Your task to perform on an android device: open app "Duolingo: language lessons" (install if not already installed) Image 0: 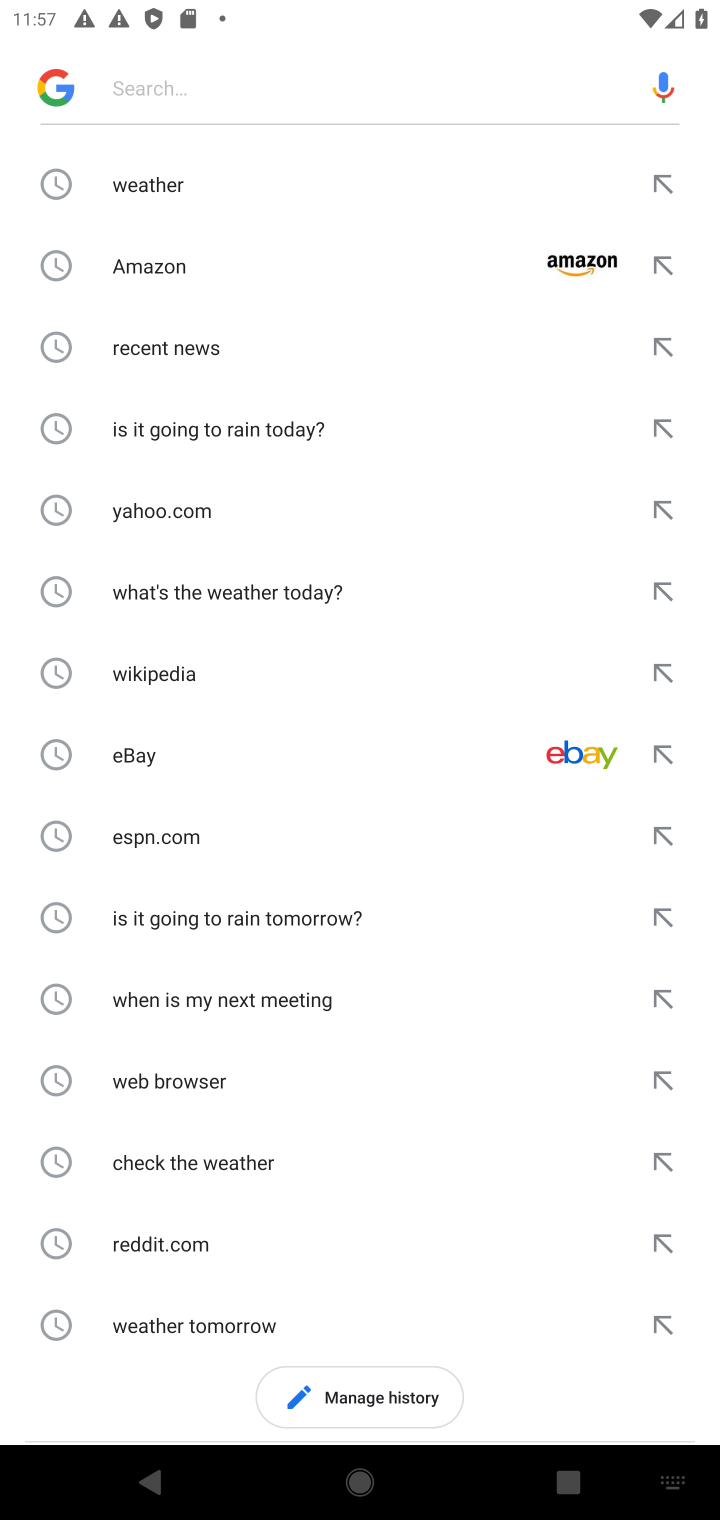
Step 0: press home button
Your task to perform on an android device: open app "Duolingo: language lessons" (install if not already installed) Image 1: 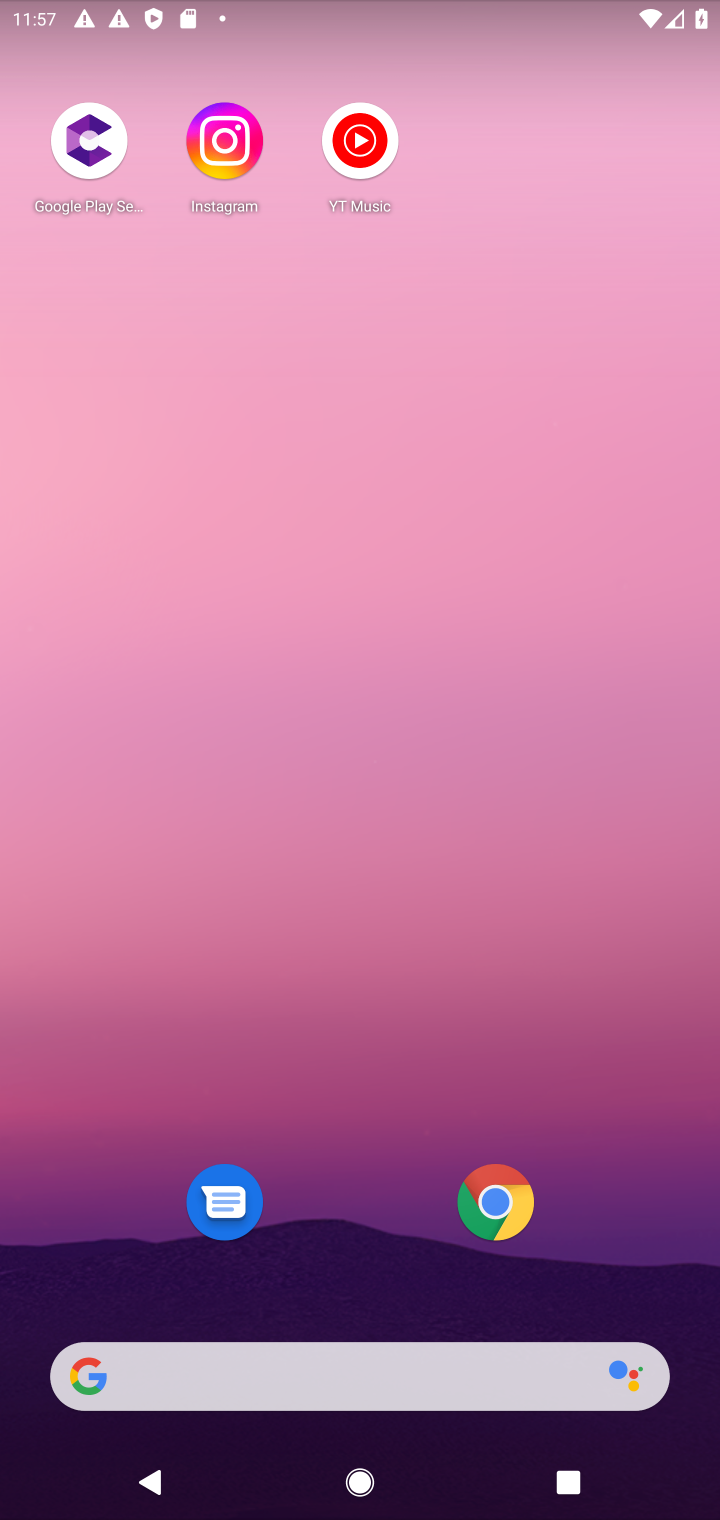
Step 1: drag from (241, 1460) to (297, 97)
Your task to perform on an android device: open app "Duolingo: language lessons" (install if not already installed) Image 2: 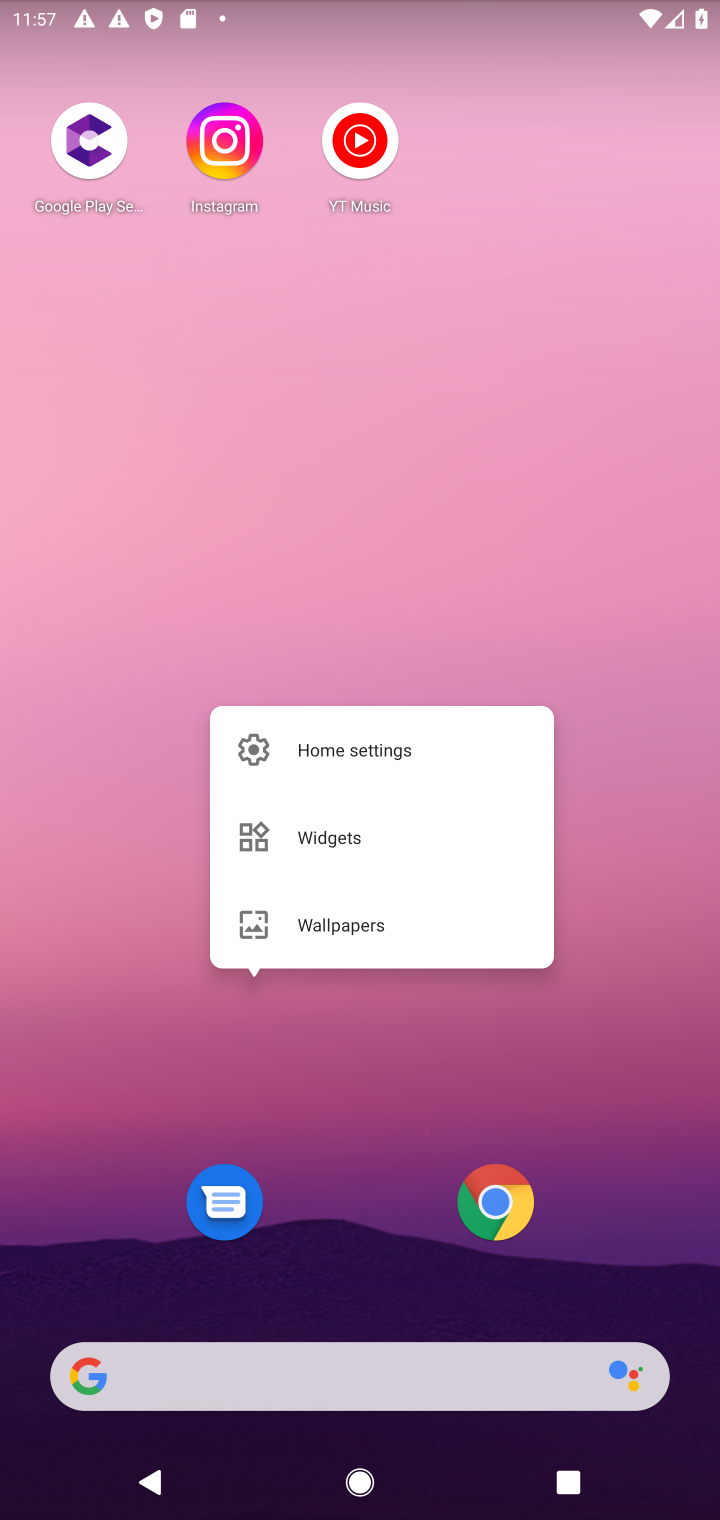
Step 2: drag from (269, 1189) to (253, 257)
Your task to perform on an android device: open app "Duolingo: language lessons" (install if not already installed) Image 3: 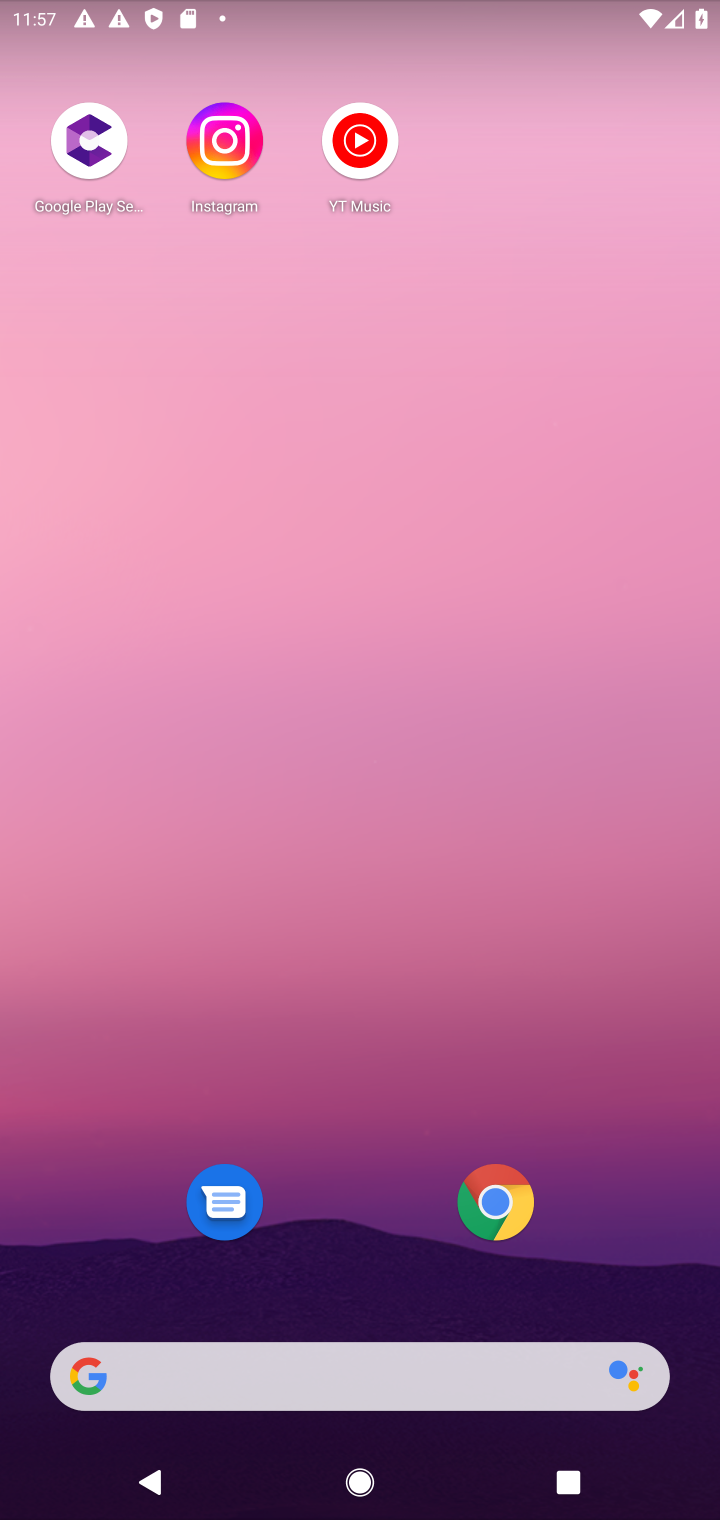
Step 3: drag from (475, 1464) to (498, 67)
Your task to perform on an android device: open app "Duolingo: language lessons" (install if not already installed) Image 4: 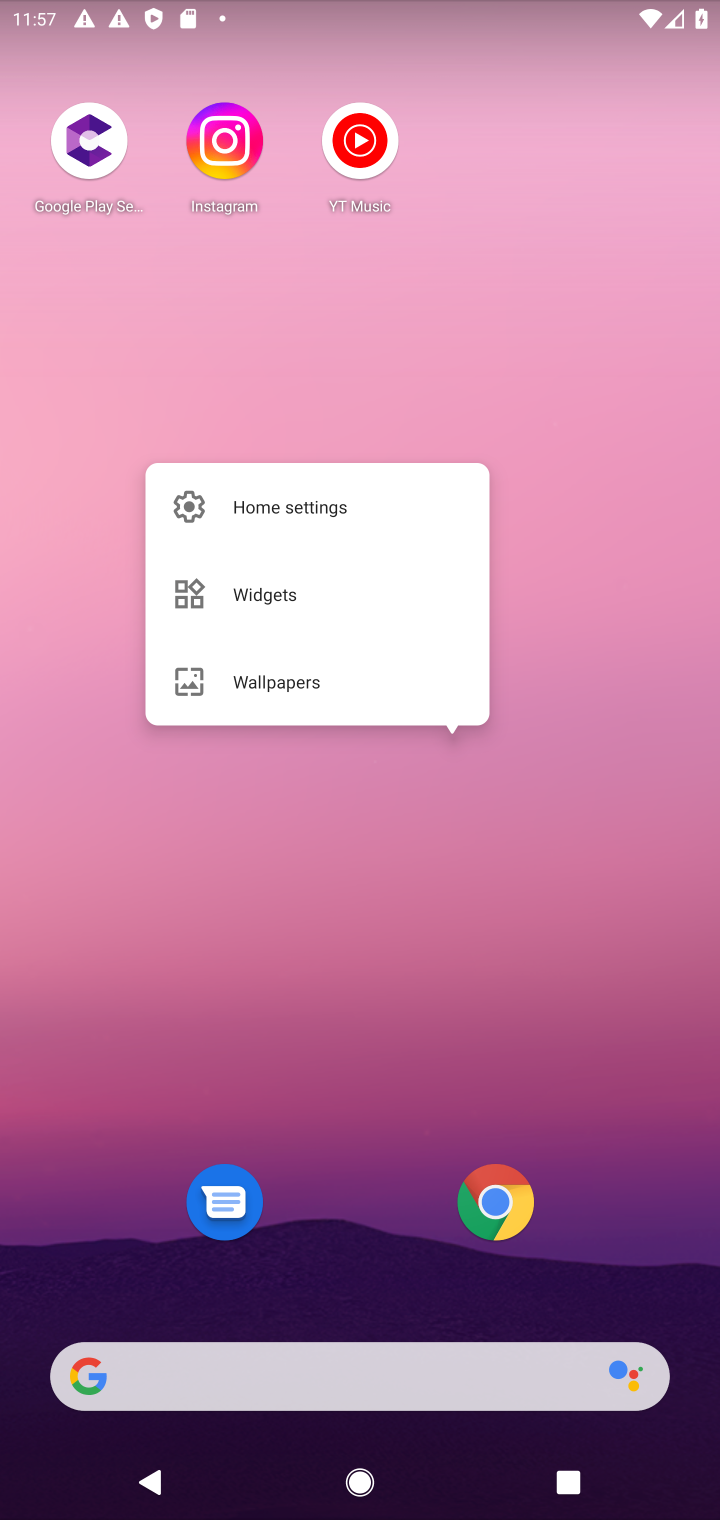
Step 4: drag from (417, 1452) to (626, 236)
Your task to perform on an android device: open app "Duolingo: language lessons" (install if not already installed) Image 5: 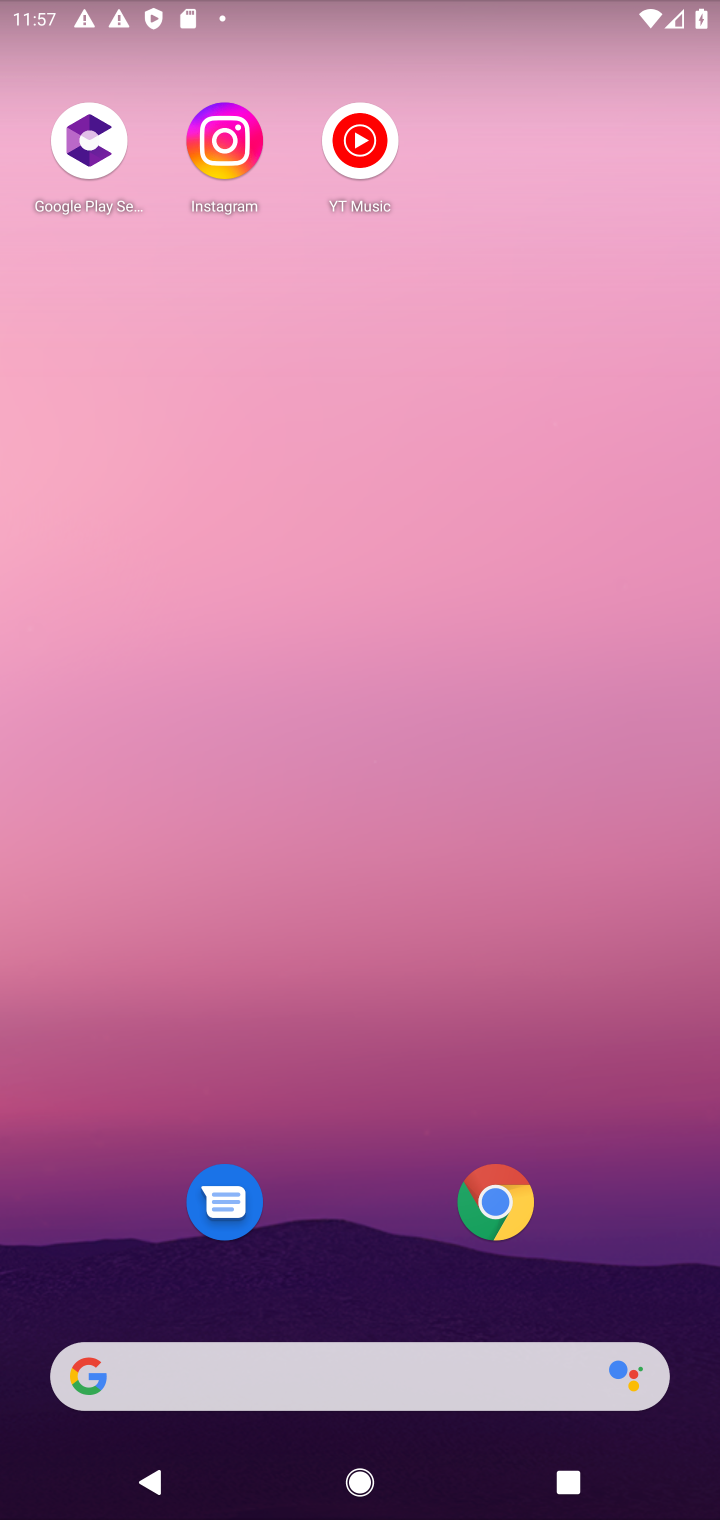
Step 5: drag from (233, 1432) to (453, 153)
Your task to perform on an android device: open app "Duolingo: language lessons" (install if not already installed) Image 6: 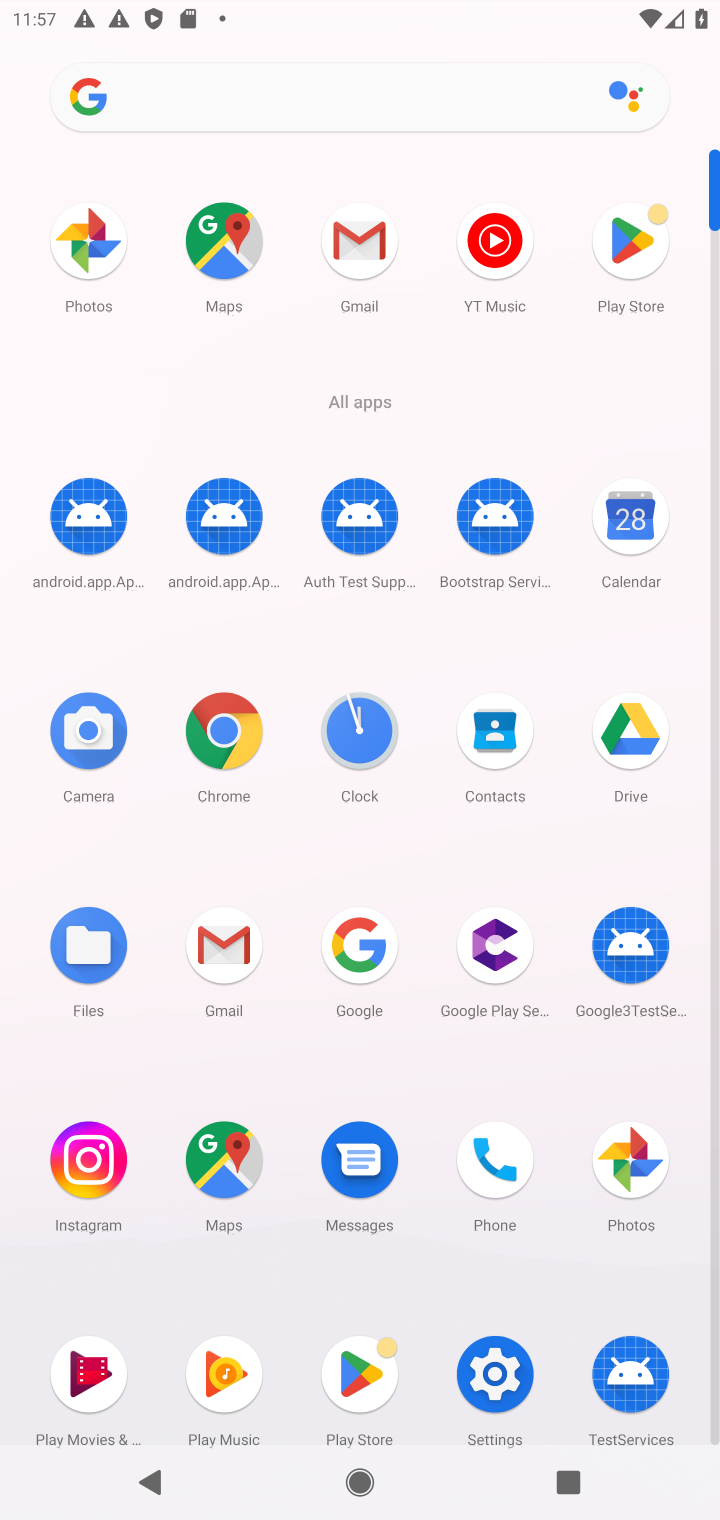
Step 6: click (630, 227)
Your task to perform on an android device: open app "Duolingo: language lessons" (install if not already installed) Image 7: 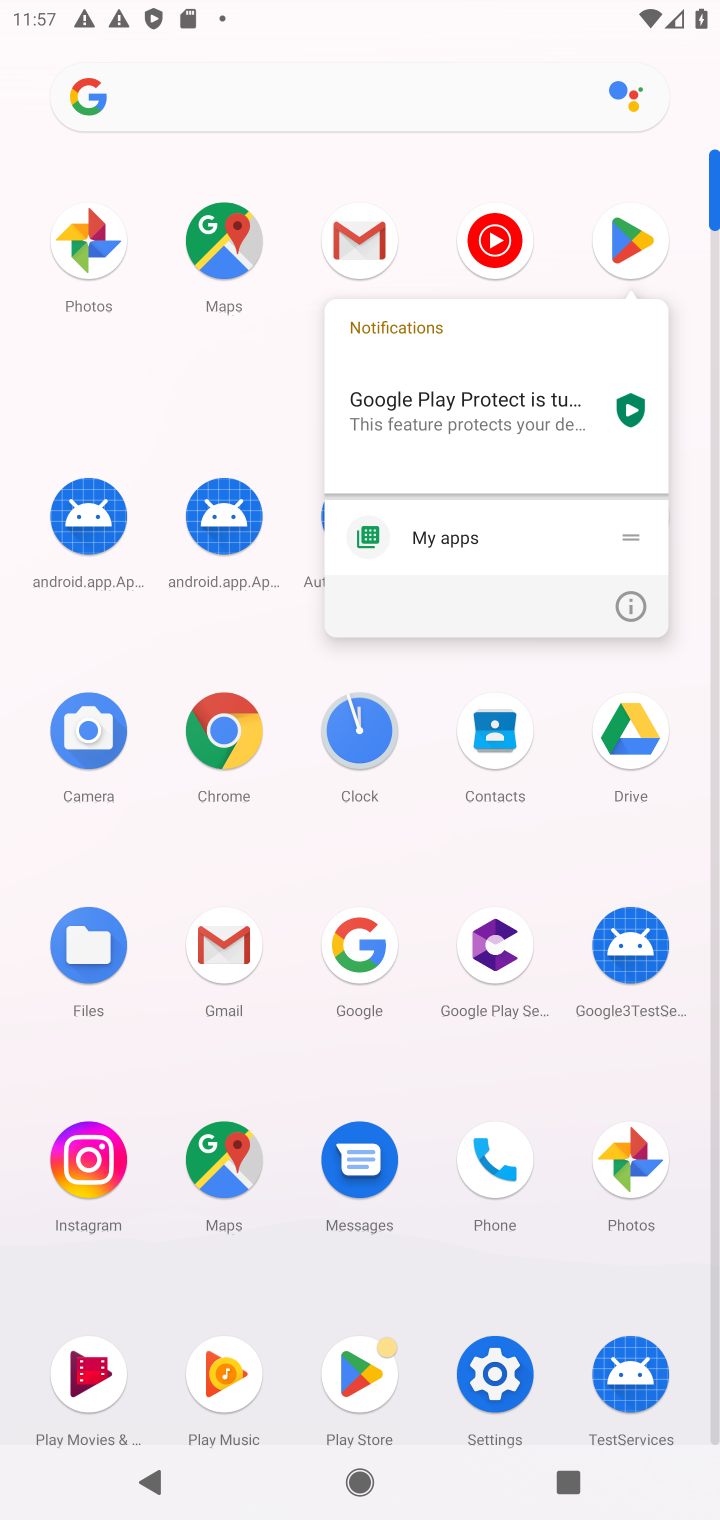
Step 7: click (630, 227)
Your task to perform on an android device: open app "Duolingo: language lessons" (install if not already installed) Image 8: 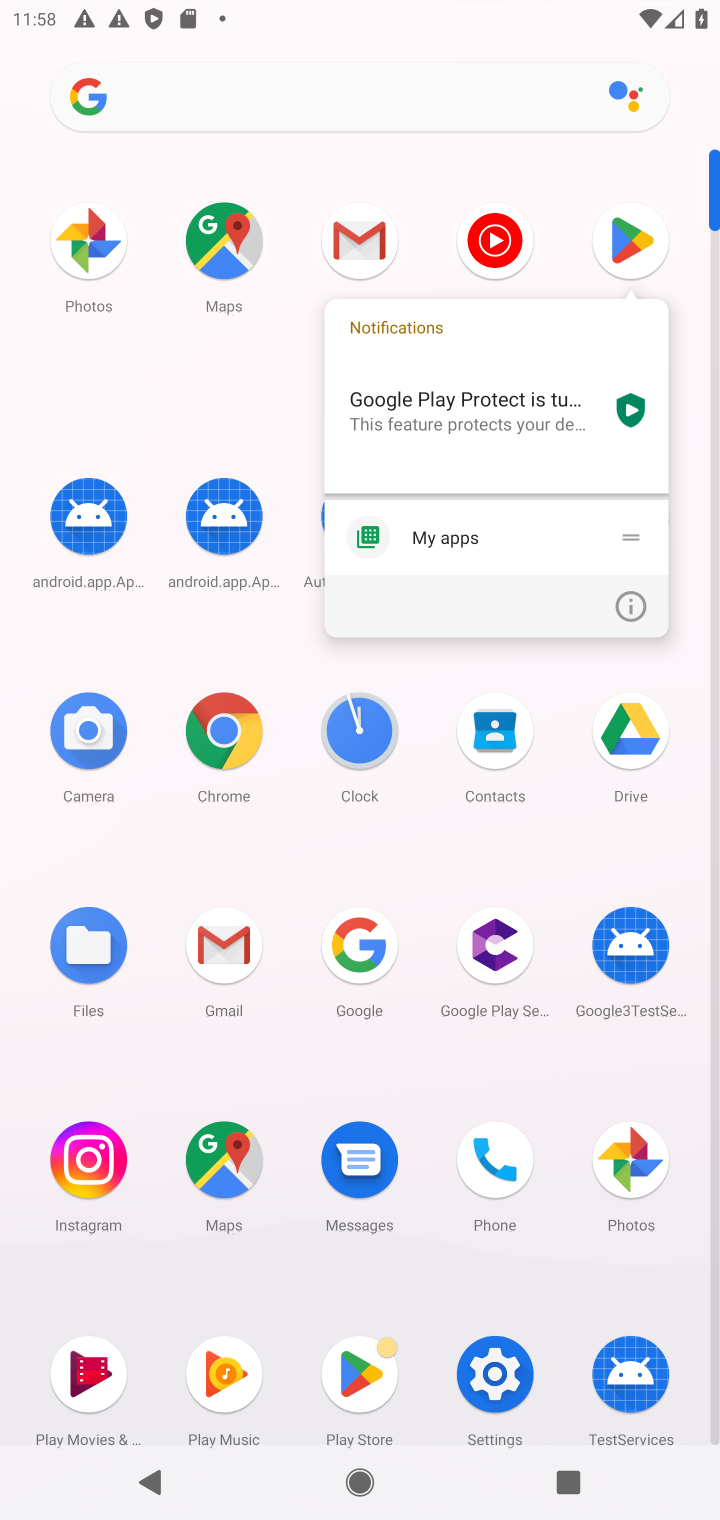
Step 8: click (630, 227)
Your task to perform on an android device: open app "Duolingo: language lessons" (install if not already installed) Image 9: 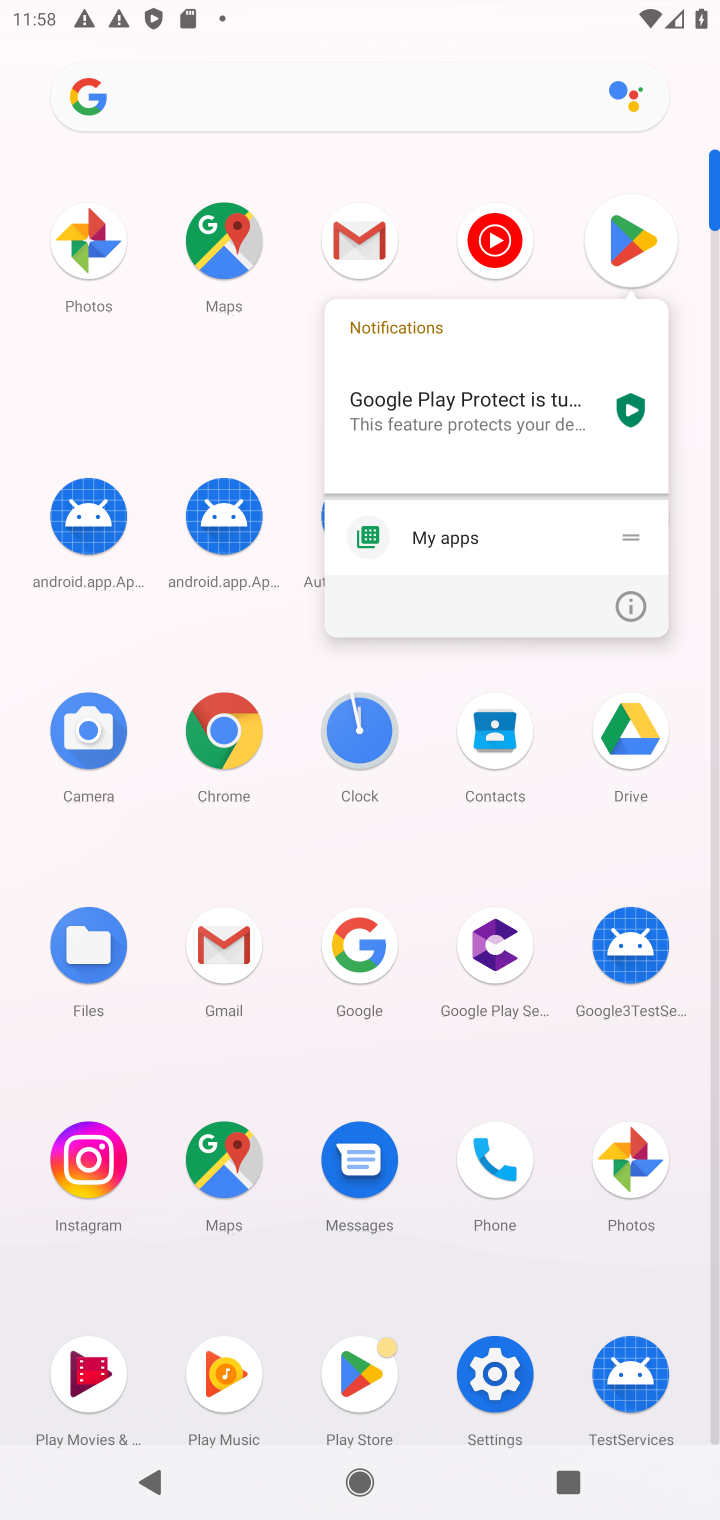
Step 9: click (630, 227)
Your task to perform on an android device: open app "Duolingo: language lessons" (install if not already installed) Image 10: 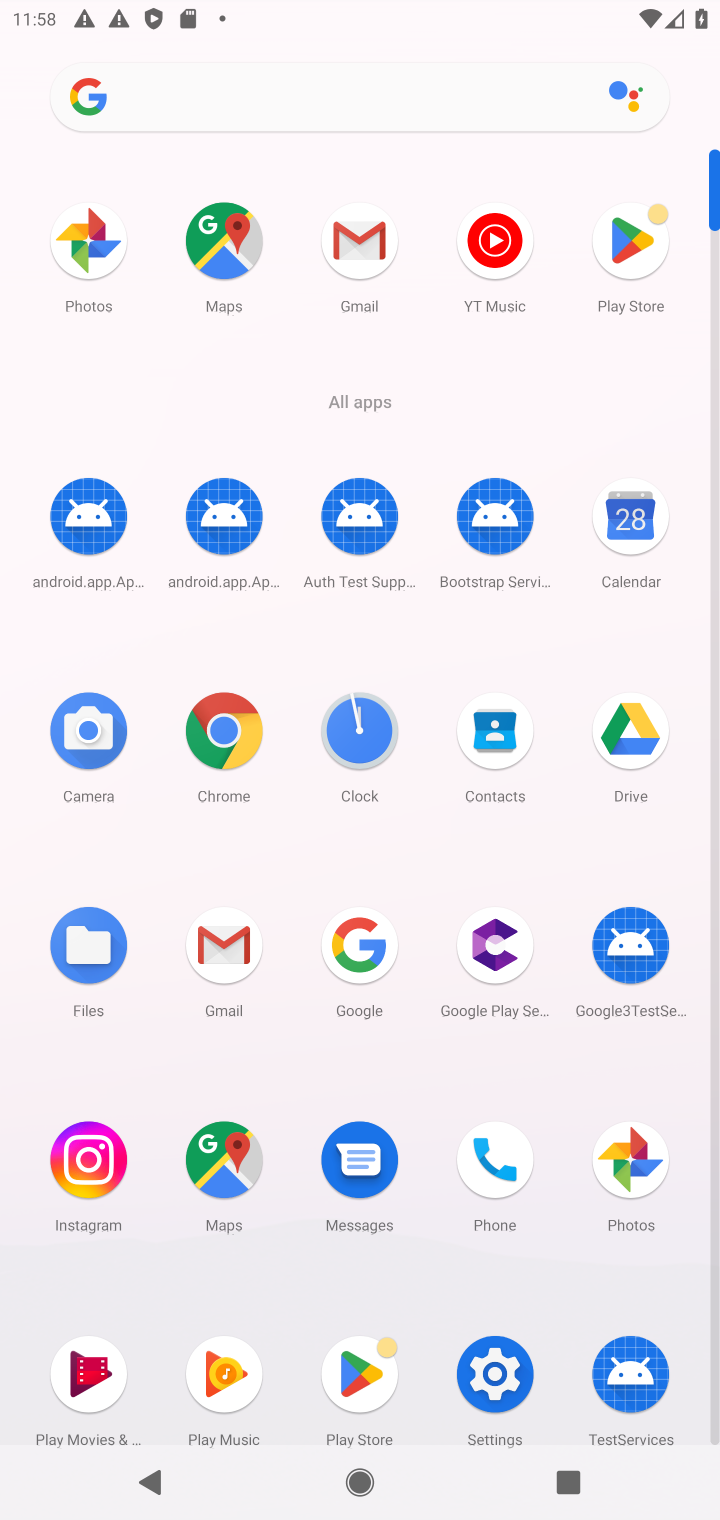
Step 10: click (630, 227)
Your task to perform on an android device: open app "Duolingo: language lessons" (install if not already installed) Image 11: 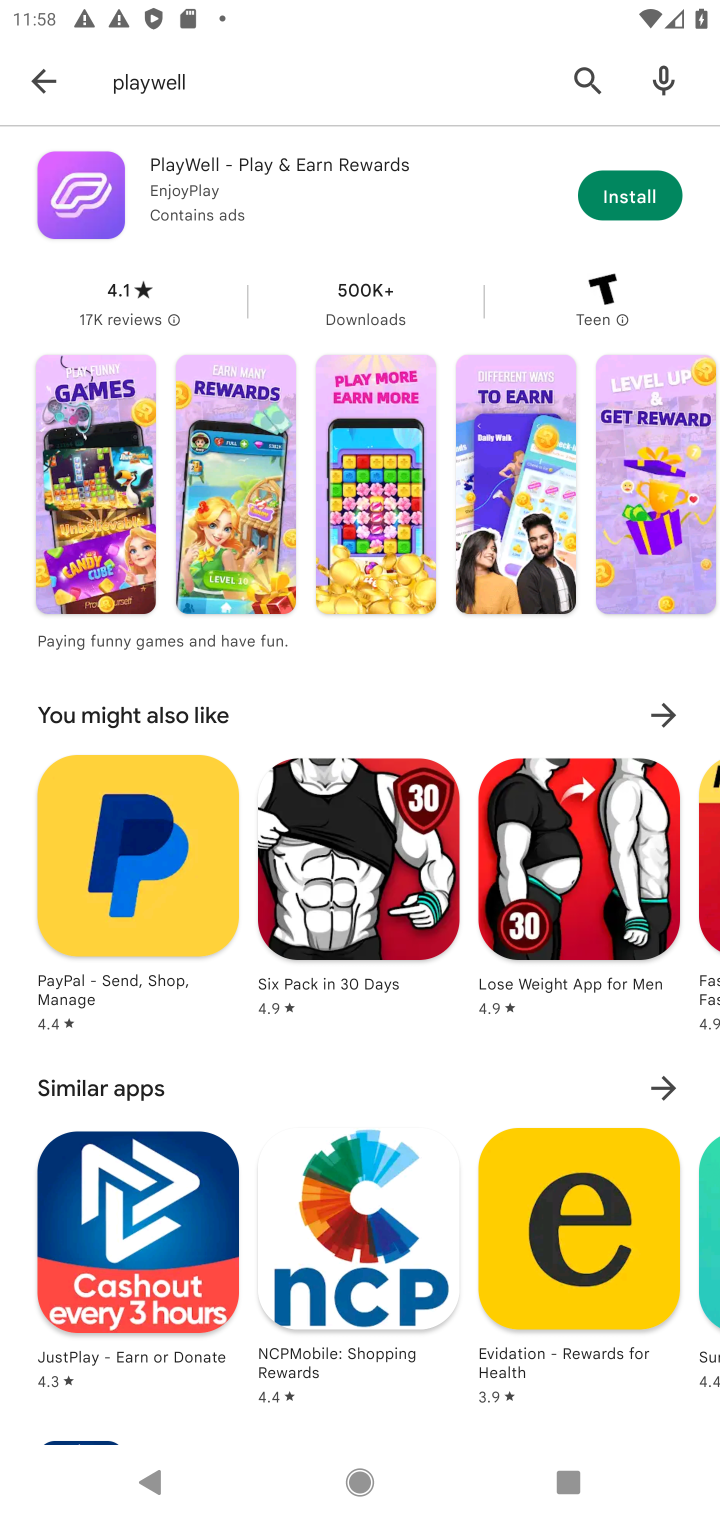
Step 11: click (589, 72)
Your task to perform on an android device: open app "Duolingo: language lessons" (install if not already installed) Image 12: 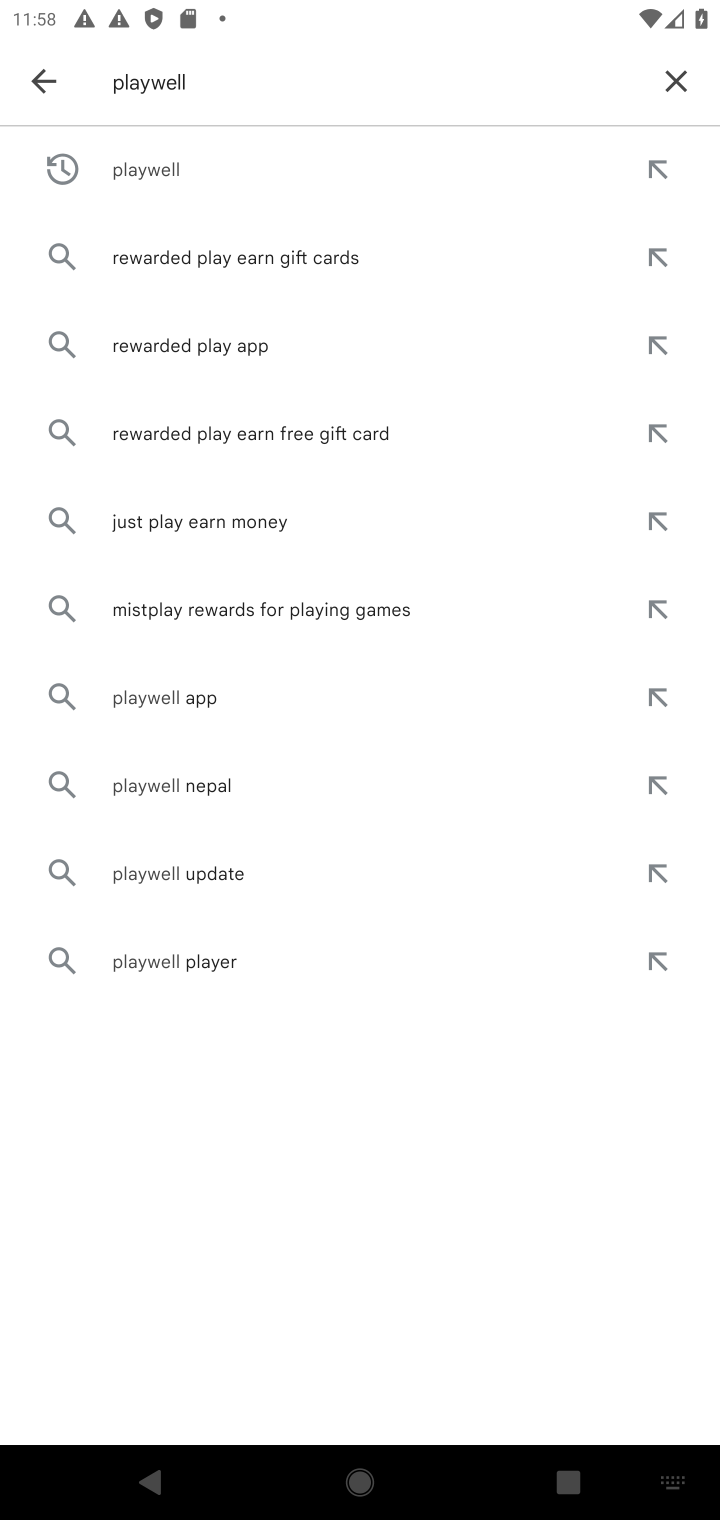
Step 12: click (660, 76)
Your task to perform on an android device: open app "Duolingo: language lessons" (install if not already installed) Image 13: 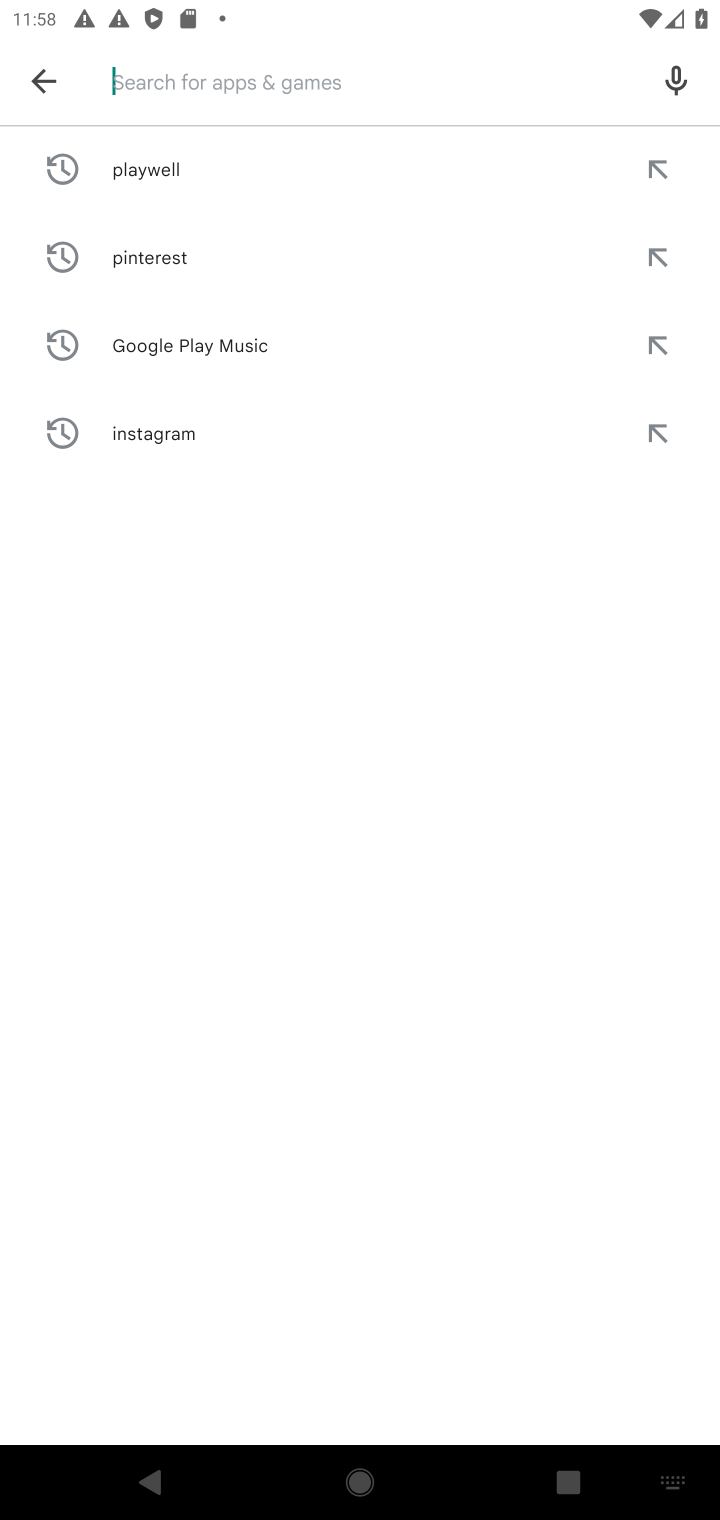
Step 13: type "Duolingo: language lessons"
Your task to perform on an android device: open app "Duolingo: language lessons" (install if not already installed) Image 14: 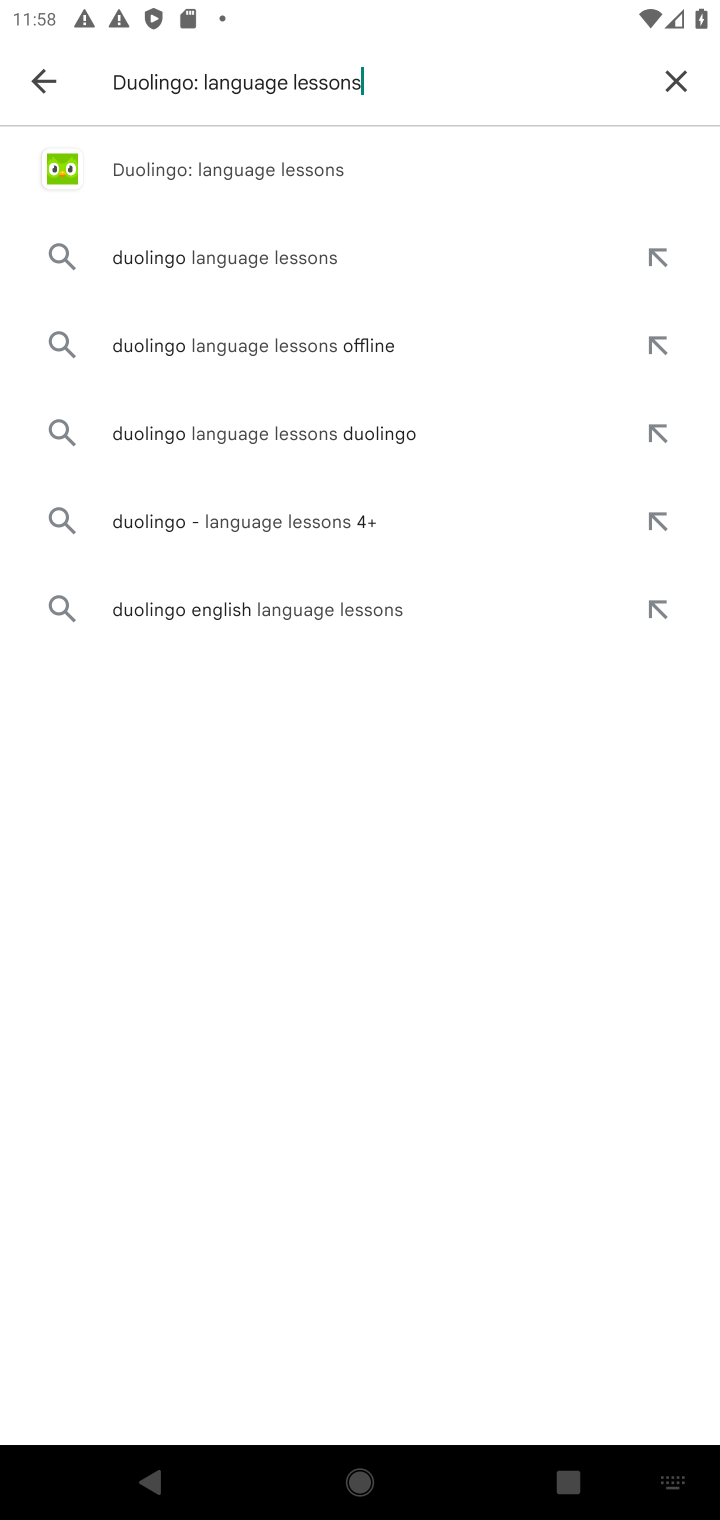
Step 14: click (298, 160)
Your task to perform on an android device: open app "Duolingo: language lessons" (install if not already installed) Image 15: 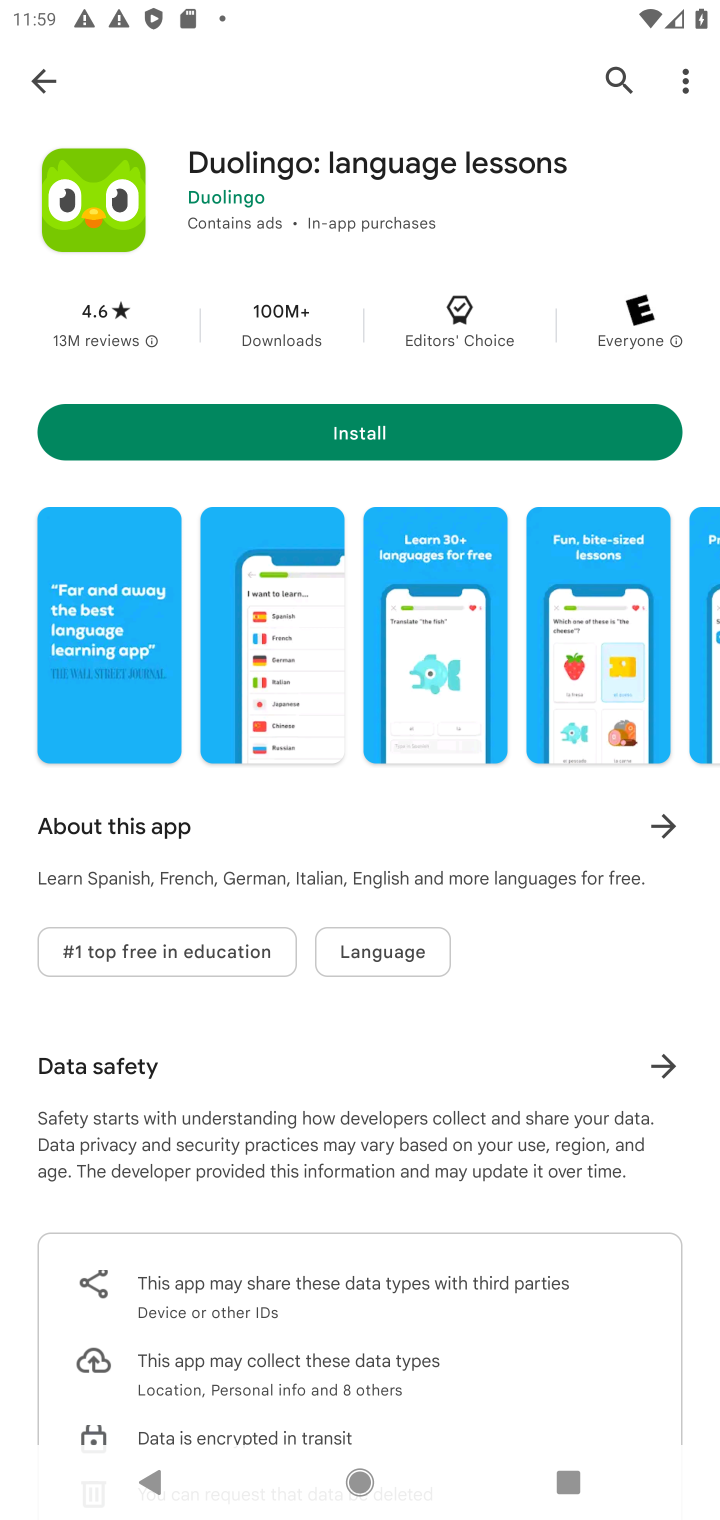
Step 15: click (542, 432)
Your task to perform on an android device: open app "Duolingo: language lessons" (install if not already installed) Image 16: 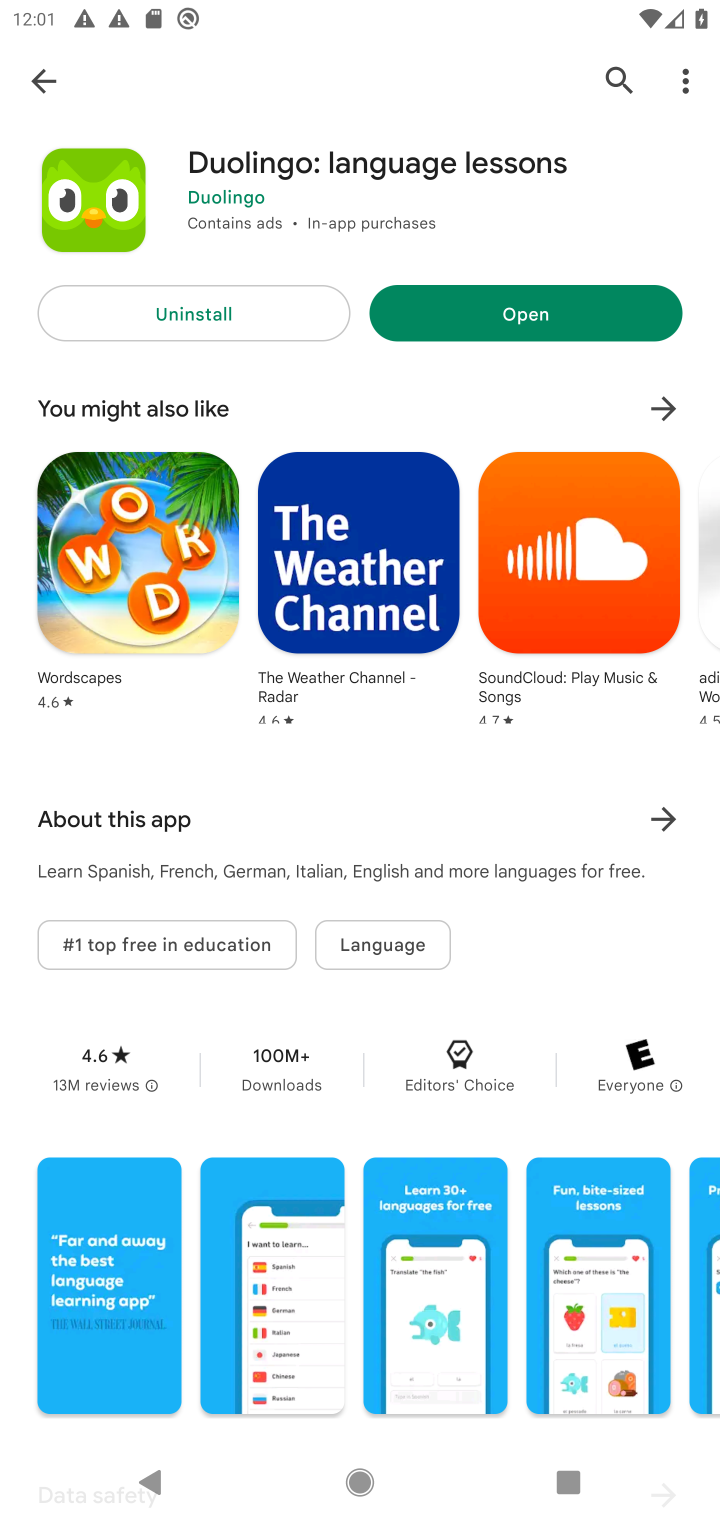
Step 16: click (613, 305)
Your task to perform on an android device: open app "Duolingo: language lessons" (install if not already installed) Image 17: 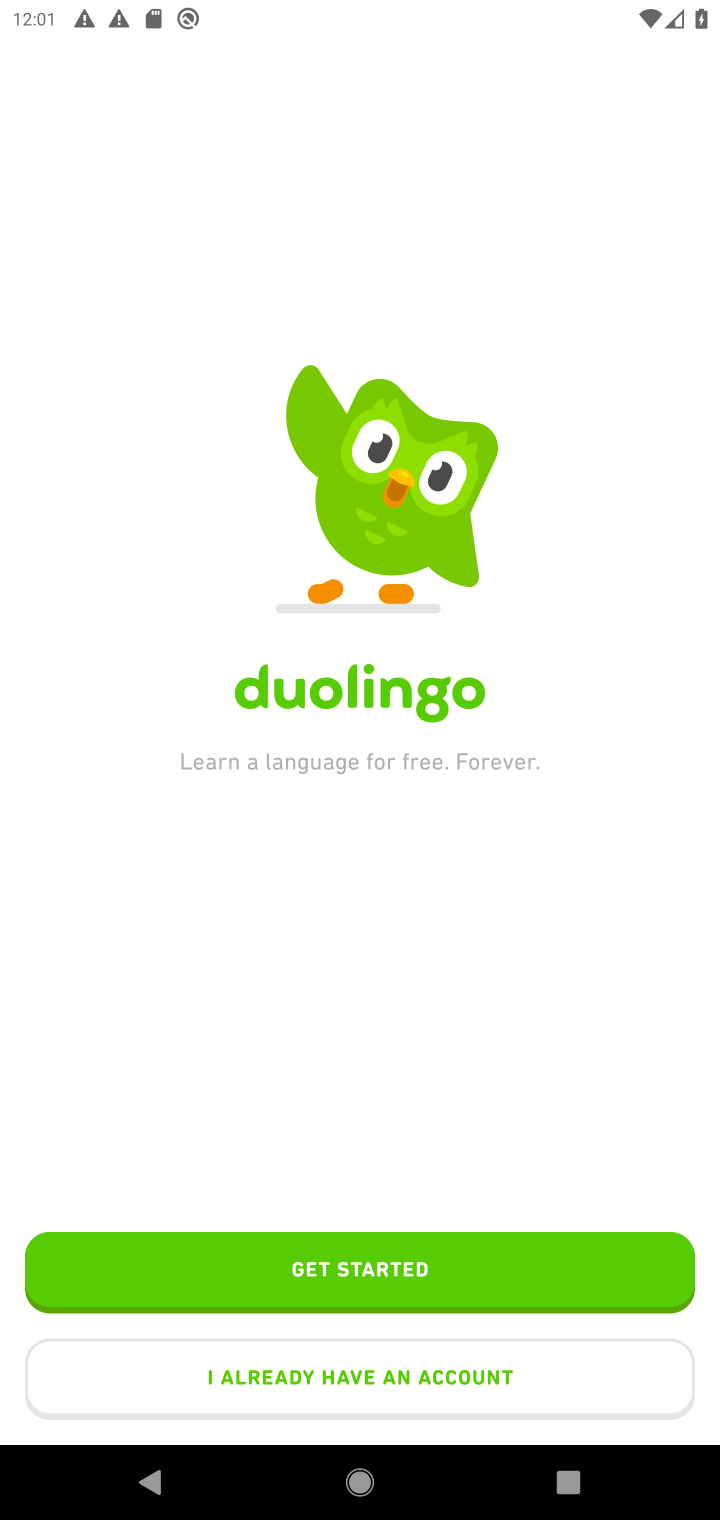
Step 17: task complete